Your task to perform on an android device: Search for seafood restaurants on Google Maps Image 0: 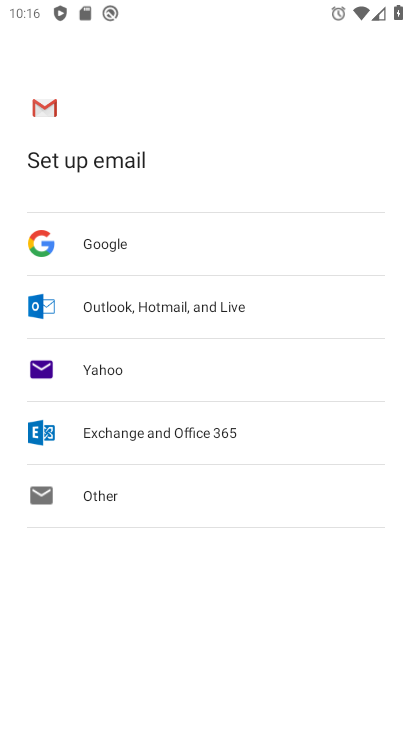
Step 0: press home button
Your task to perform on an android device: Search for seafood restaurants on Google Maps Image 1: 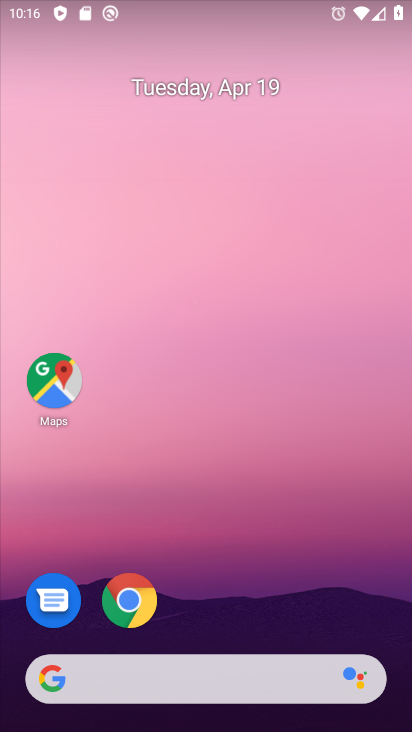
Step 1: drag from (326, 623) to (178, 62)
Your task to perform on an android device: Search for seafood restaurants on Google Maps Image 2: 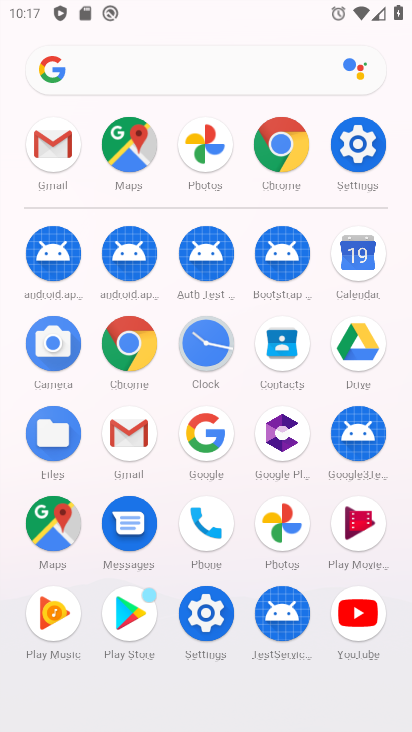
Step 2: click (125, 153)
Your task to perform on an android device: Search for seafood restaurants on Google Maps Image 3: 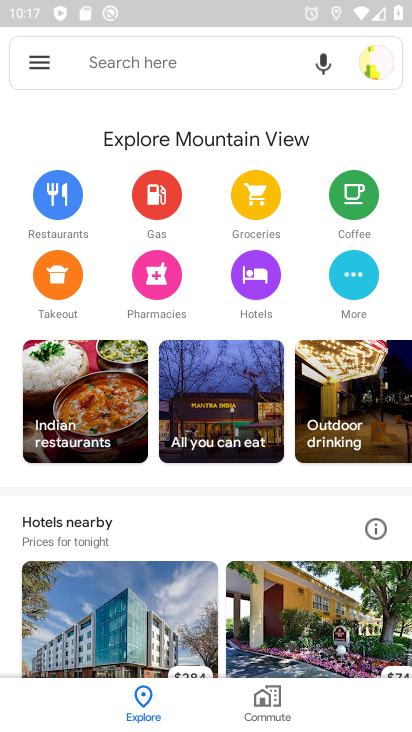
Step 3: click (197, 53)
Your task to perform on an android device: Search for seafood restaurants on Google Maps Image 4: 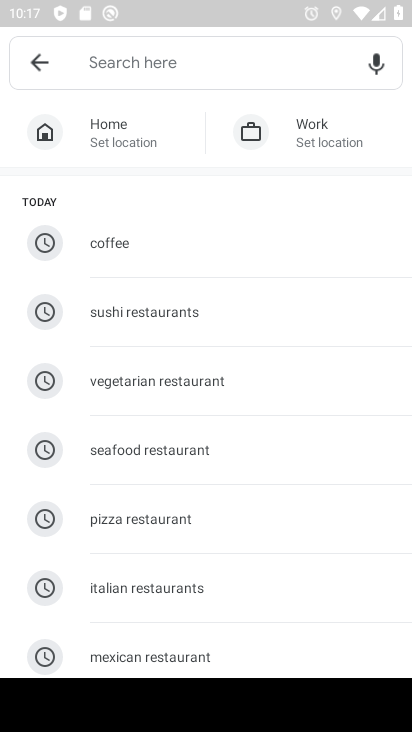
Step 4: click (217, 445)
Your task to perform on an android device: Search for seafood restaurants on Google Maps Image 5: 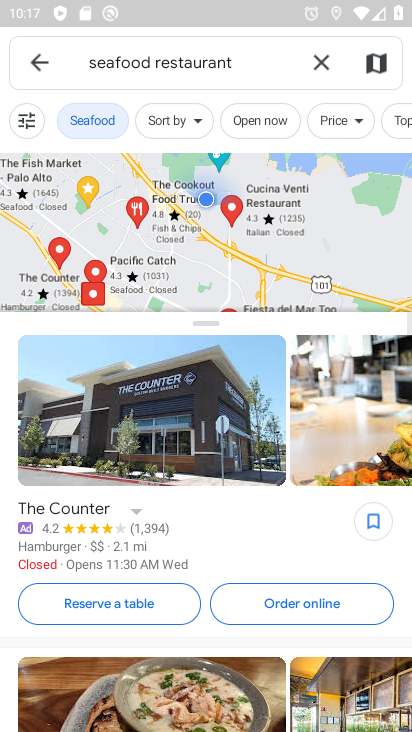
Step 5: task complete